Your task to perform on an android device: Open Yahoo.com Image 0: 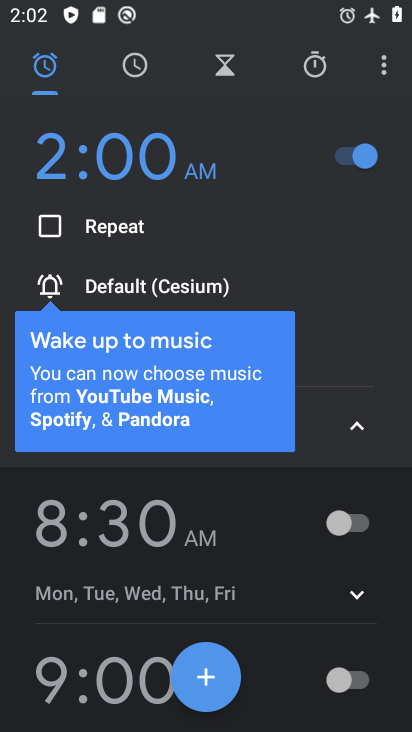
Step 0: press home button
Your task to perform on an android device: Open Yahoo.com Image 1: 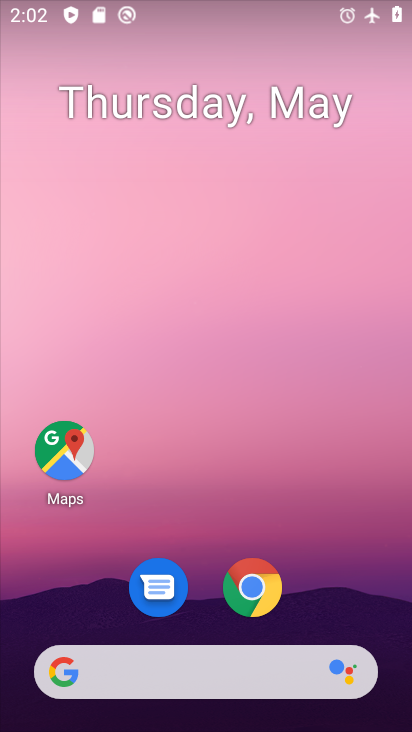
Step 1: click (258, 588)
Your task to perform on an android device: Open Yahoo.com Image 2: 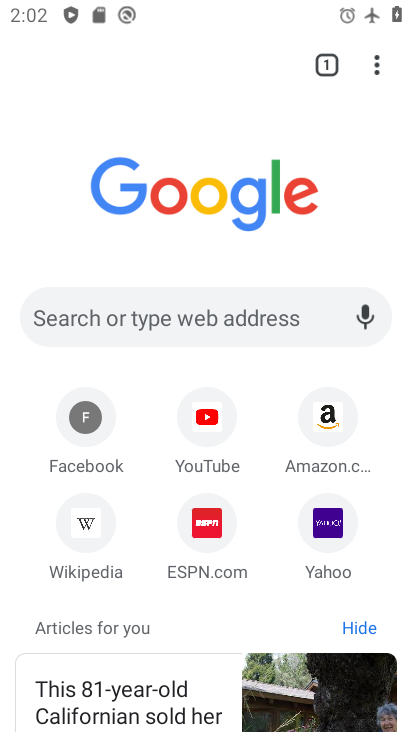
Step 2: click (320, 522)
Your task to perform on an android device: Open Yahoo.com Image 3: 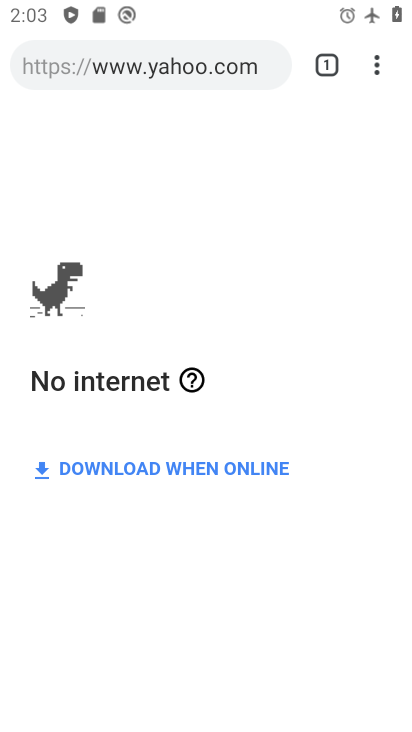
Step 3: task complete